Your task to perform on an android device: Open settings Image 0: 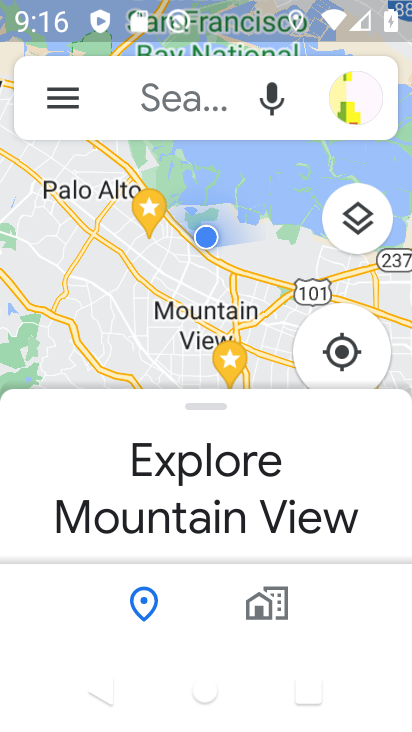
Step 0: press home button
Your task to perform on an android device: Open settings Image 1: 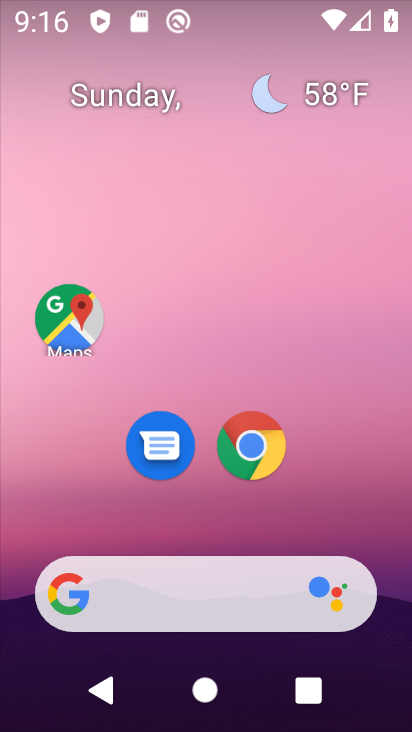
Step 1: drag from (222, 570) to (195, 44)
Your task to perform on an android device: Open settings Image 2: 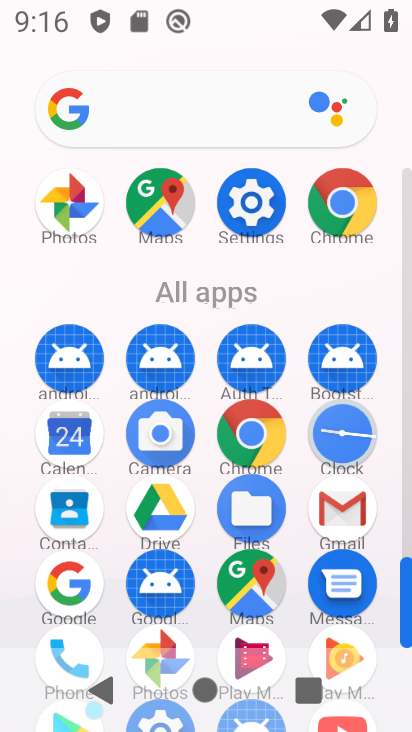
Step 2: click (259, 189)
Your task to perform on an android device: Open settings Image 3: 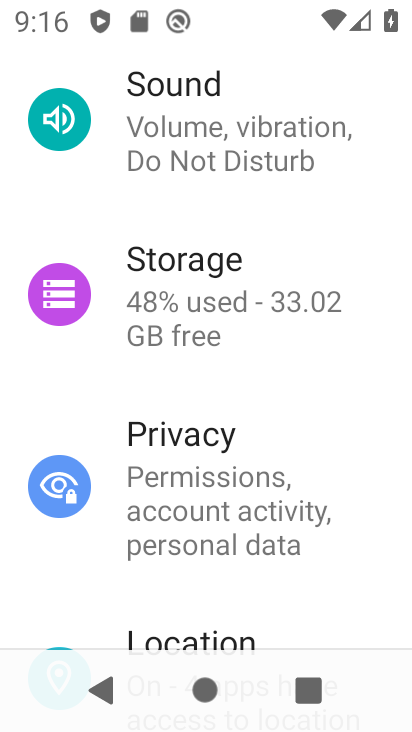
Step 3: task complete